Your task to perform on an android device: What is the capital of Japan? Image 0: 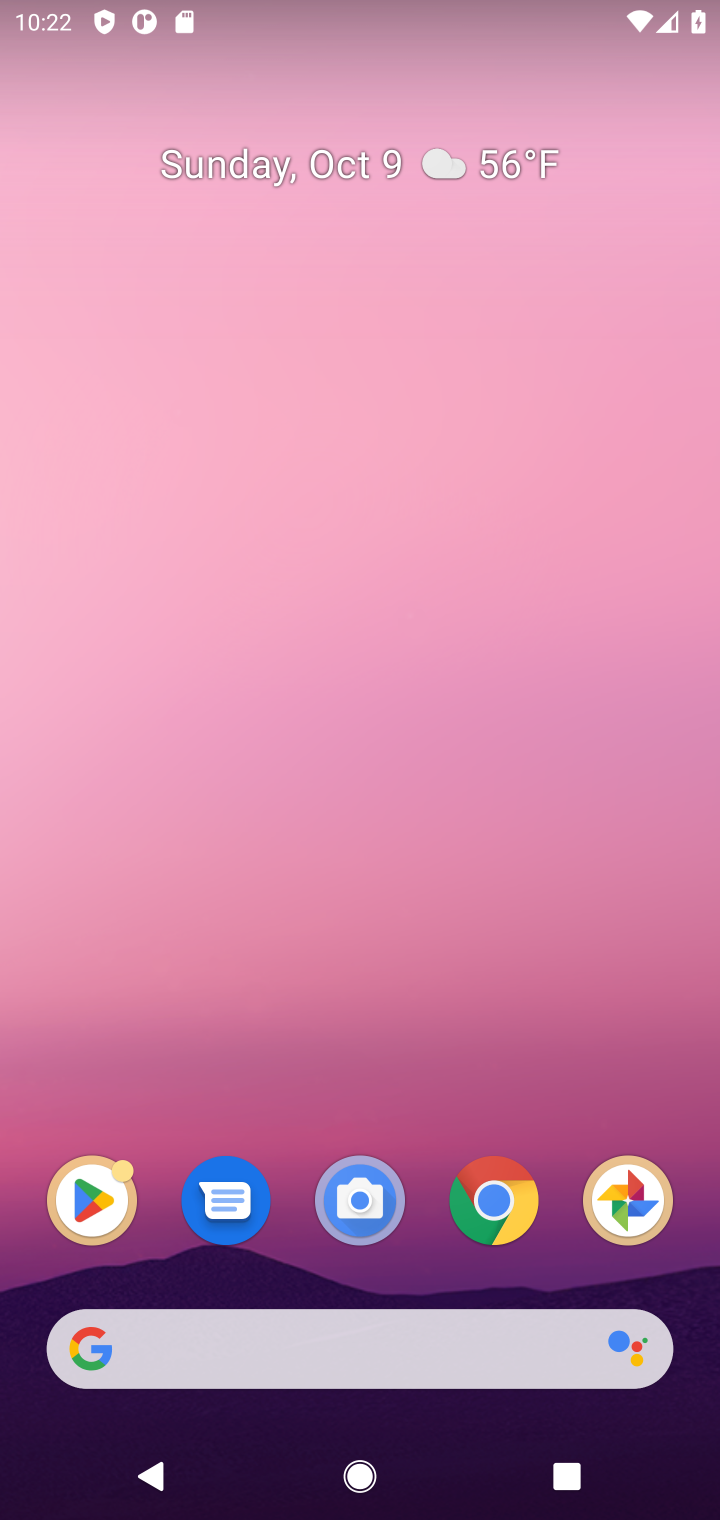
Step 0: click (517, 1182)
Your task to perform on an android device: What is the capital of Japan? Image 1: 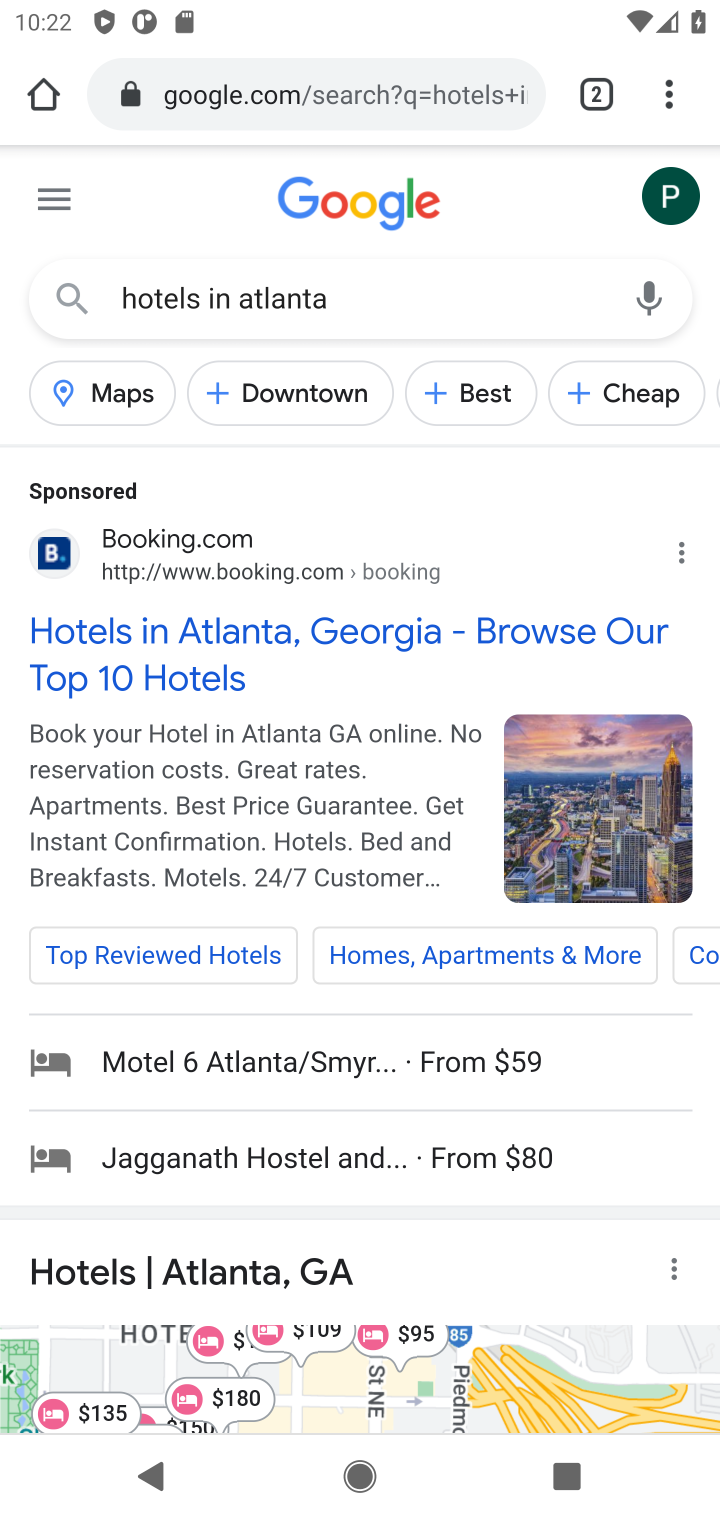
Step 1: click (406, 327)
Your task to perform on an android device: What is the capital of Japan? Image 2: 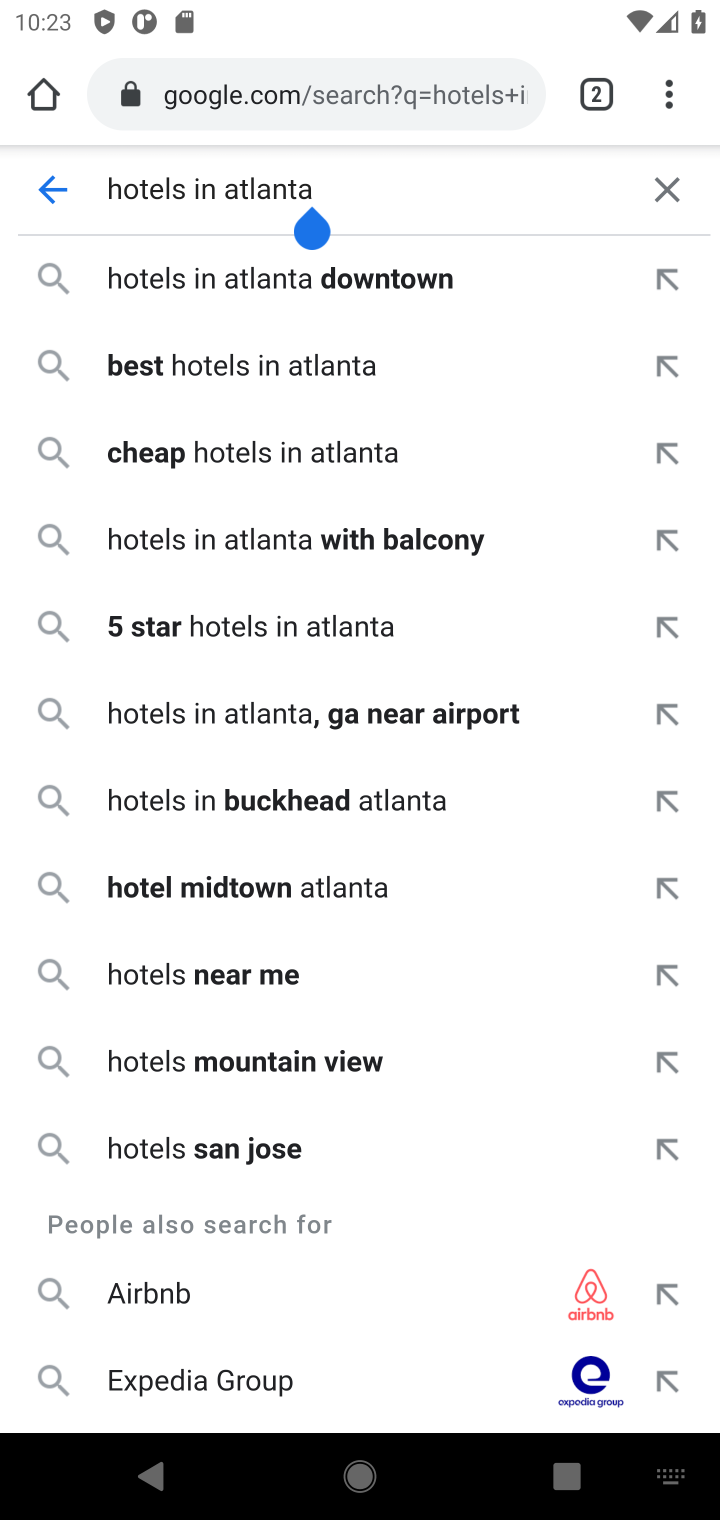
Step 2: click (687, 191)
Your task to perform on an android device: What is the capital of Japan? Image 3: 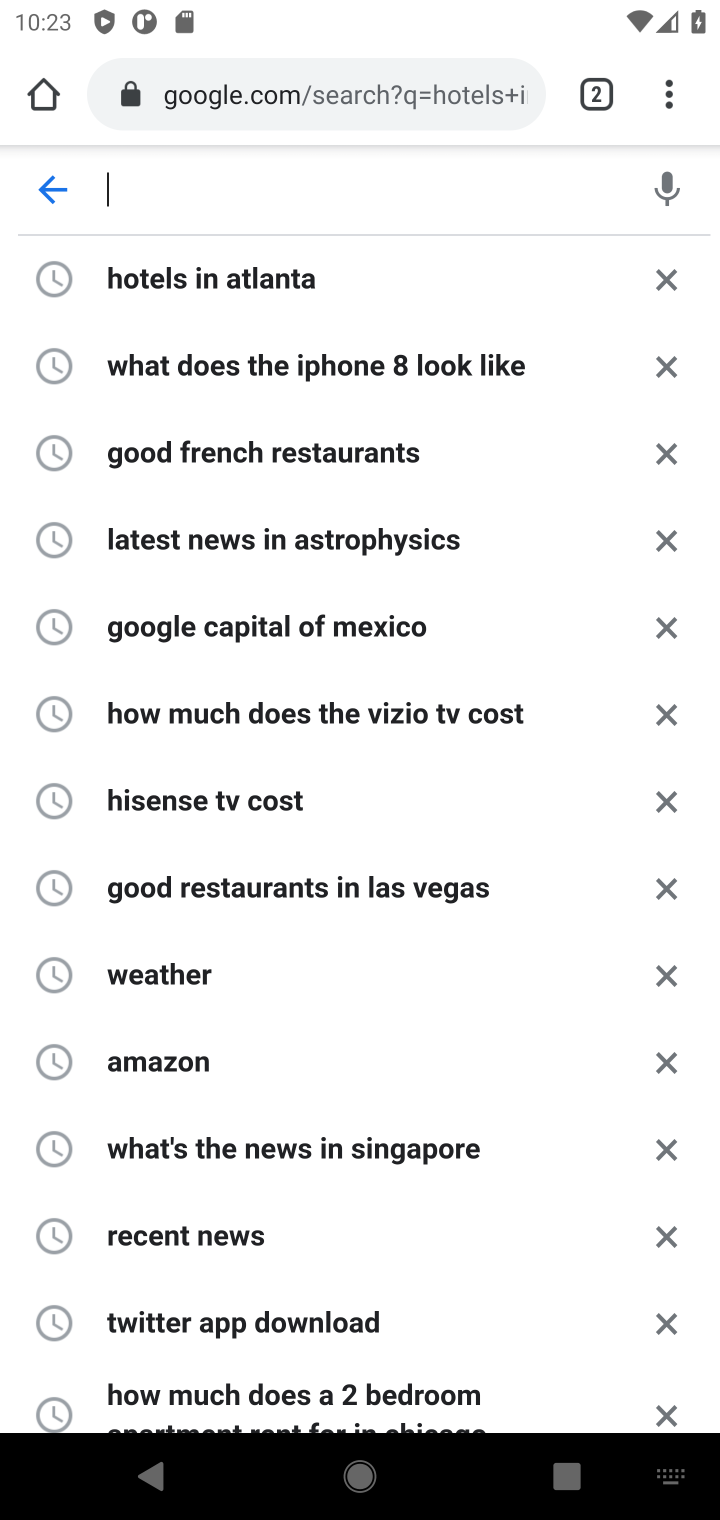
Step 3: type "capital of japan"
Your task to perform on an android device: What is the capital of Japan? Image 4: 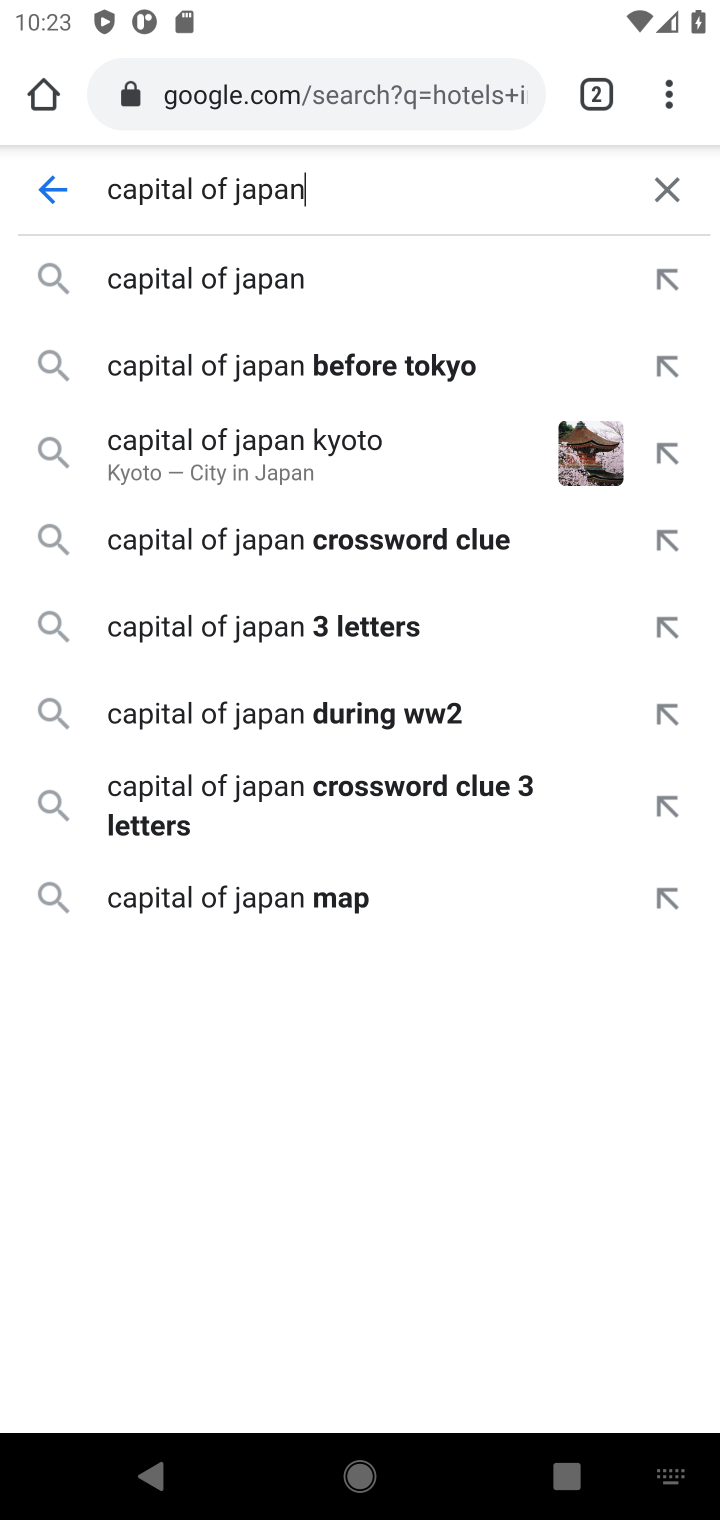
Step 4: click (261, 275)
Your task to perform on an android device: What is the capital of Japan? Image 5: 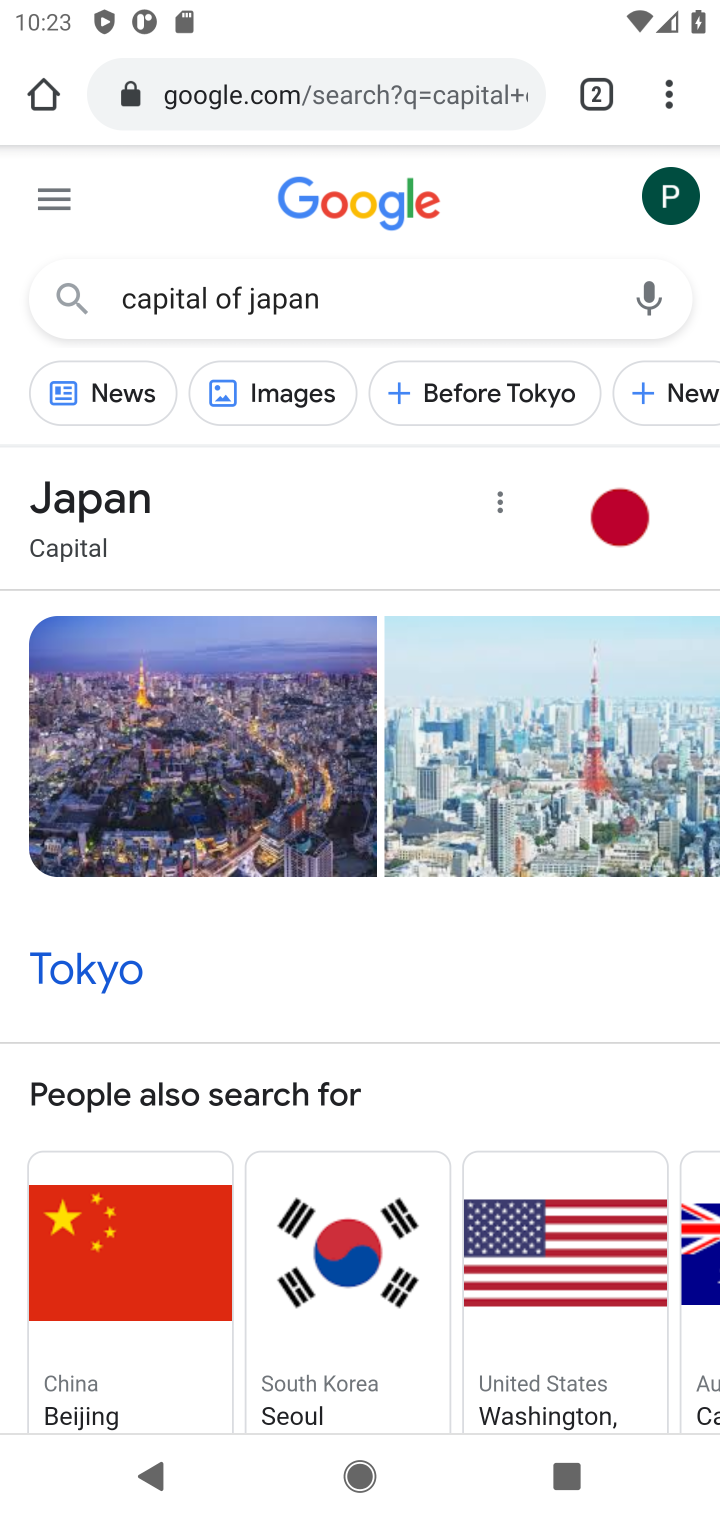
Step 5: task complete